Your task to perform on an android device: Open the phone app and click the voicemail tab. Image 0: 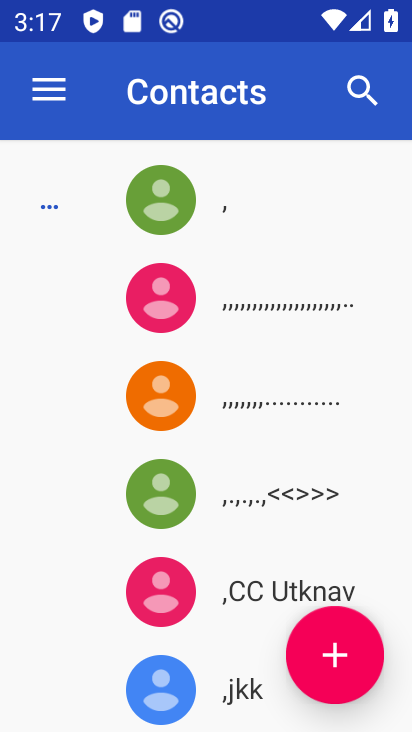
Step 0: press home button
Your task to perform on an android device: Open the phone app and click the voicemail tab. Image 1: 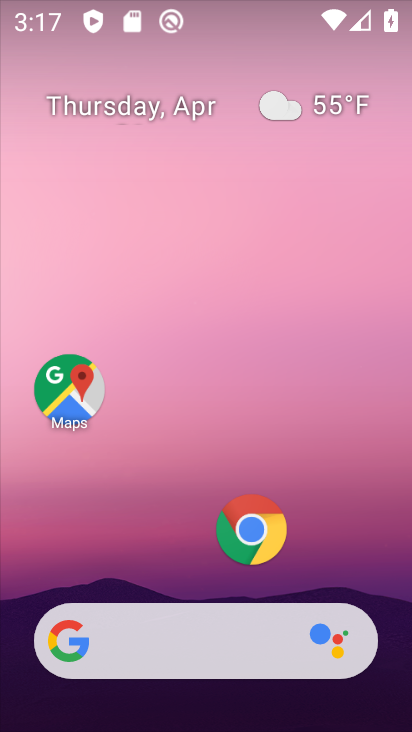
Step 1: drag from (175, 571) to (209, 196)
Your task to perform on an android device: Open the phone app and click the voicemail tab. Image 2: 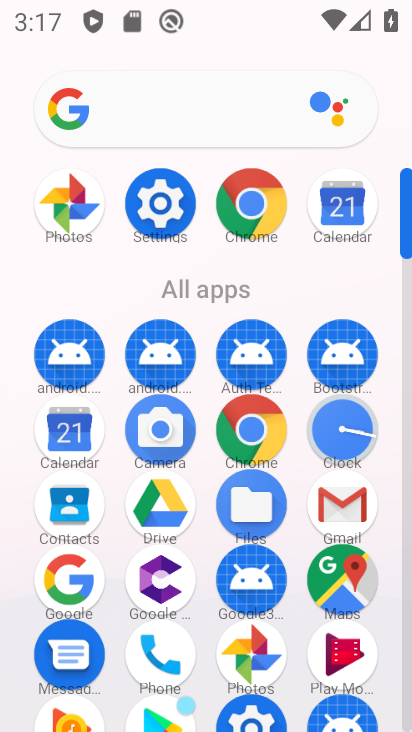
Step 2: click (149, 654)
Your task to perform on an android device: Open the phone app and click the voicemail tab. Image 3: 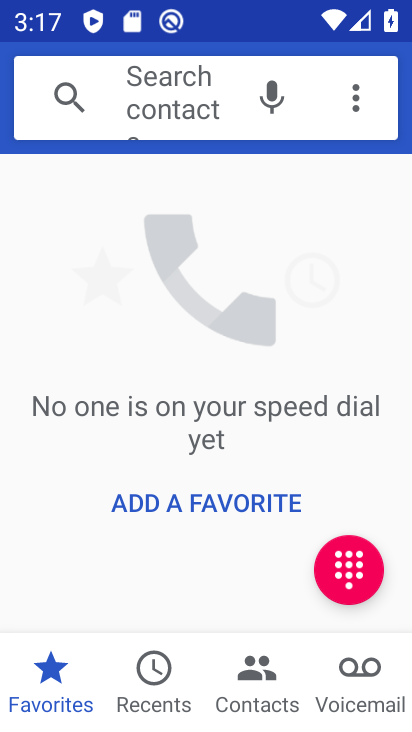
Step 3: click (347, 679)
Your task to perform on an android device: Open the phone app and click the voicemail tab. Image 4: 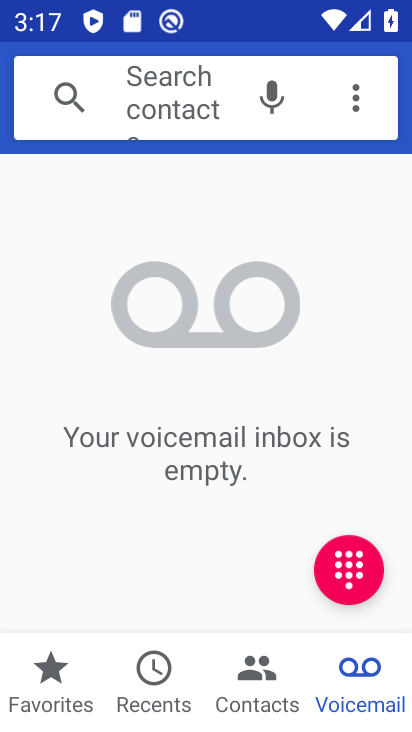
Step 4: task complete